Your task to perform on an android device: Open the phone app and click the voicemail tab. Image 0: 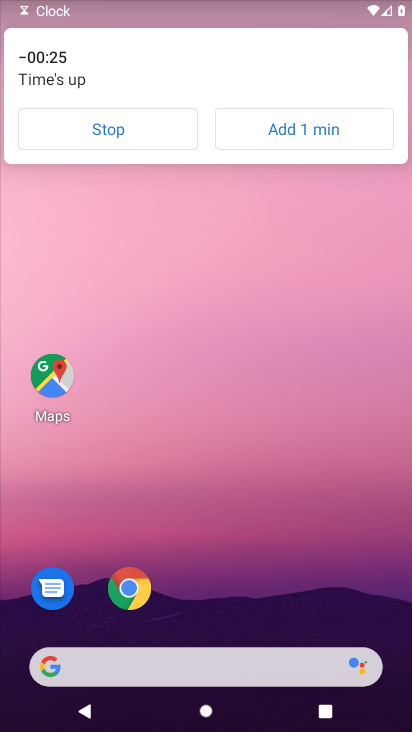
Step 0: press home button
Your task to perform on an android device: Open the phone app and click the voicemail tab. Image 1: 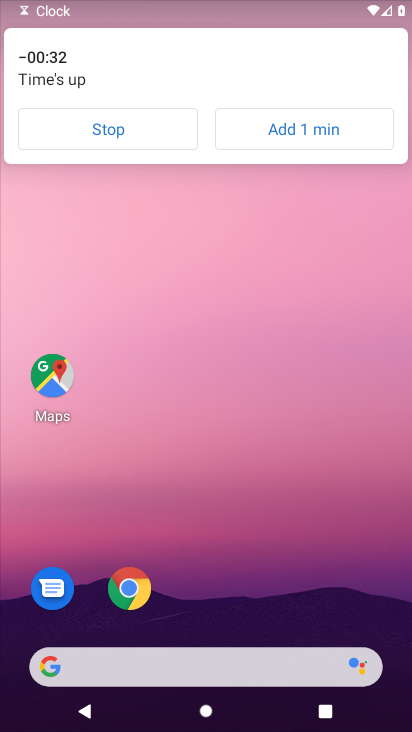
Step 1: drag from (237, 720) to (236, 112)
Your task to perform on an android device: Open the phone app and click the voicemail tab. Image 2: 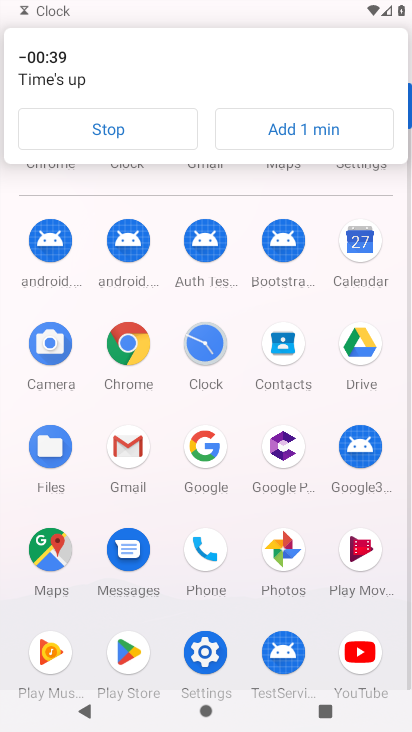
Step 2: click (205, 544)
Your task to perform on an android device: Open the phone app and click the voicemail tab. Image 3: 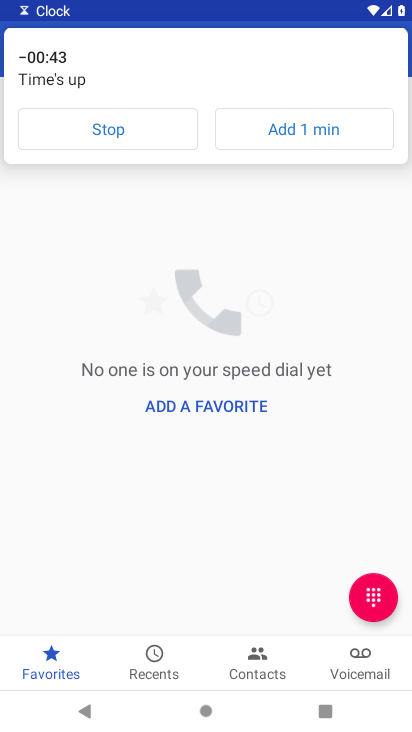
Step 3: click (367, 654)
Your task to perform on an android device: Open the phone app and click the voicemail tab. Image 4: 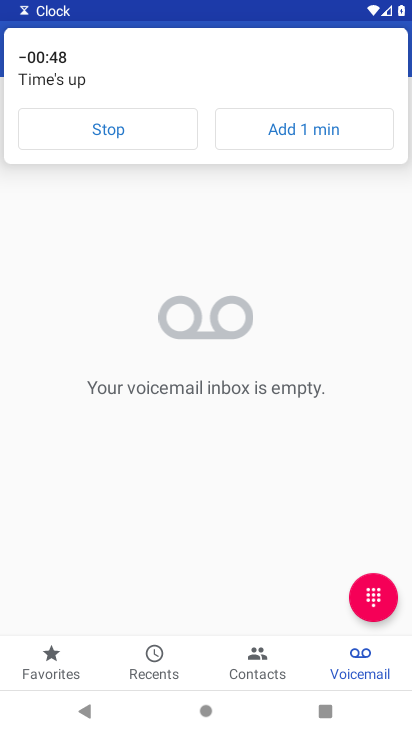
Step 4: task complete